Your task to perform on an android device: read, delete, or share a saved page in the chrome app Image 0: 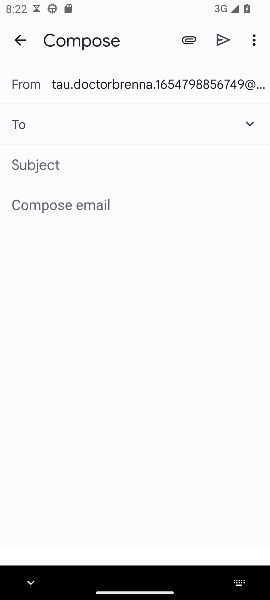
Step 0: press home button
Your task to perform on an android device: read, delete, or share a saved page in the chrome app Image 1: 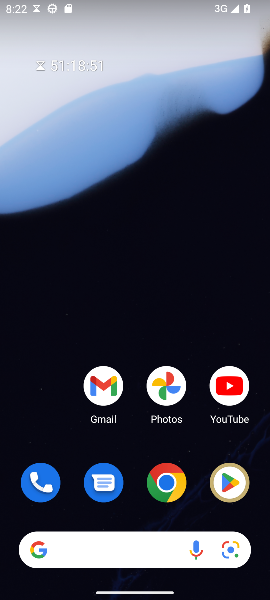
Step 1: drag from (91, 494) to (175, 117)
Your task to perform on an android device: read, delete, or share a saved page in the chrome app Image 2: 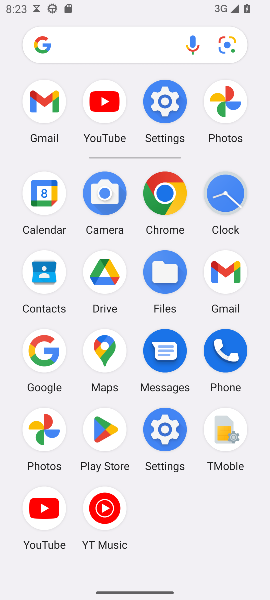
Step 2: click (162, 203)
Your task to perform on an android device: read, delete, or share a saved page in the chrome app Image 3: 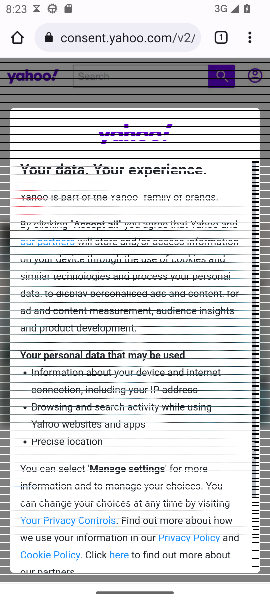
Step 3: click (141, 411)
Your task to perform on an android device: read, delete, or share a saved page in the chrome app Image 4: 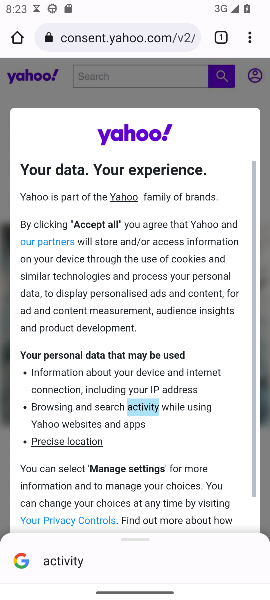
Step 4: task complete